Your task to perform on an android device: Open the calendar app, open the side menu, and click the "Day" option Image 0: 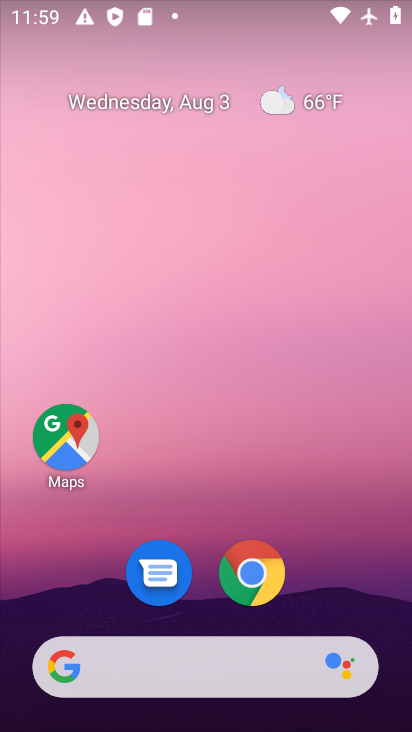
Step 0: drag from (332, 510) to (367, 48)
Your task to perform on an android device: Open the calendar app, open the side menu, and click the "Day" option Image 1: 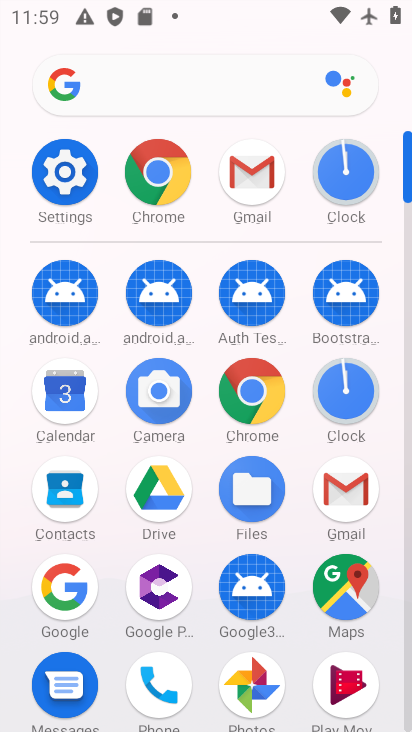
Step 1: click (78, 400)
Your task to perform on an android device: Open the calendar app, open the side menu, and click the "Day" option Image 2: 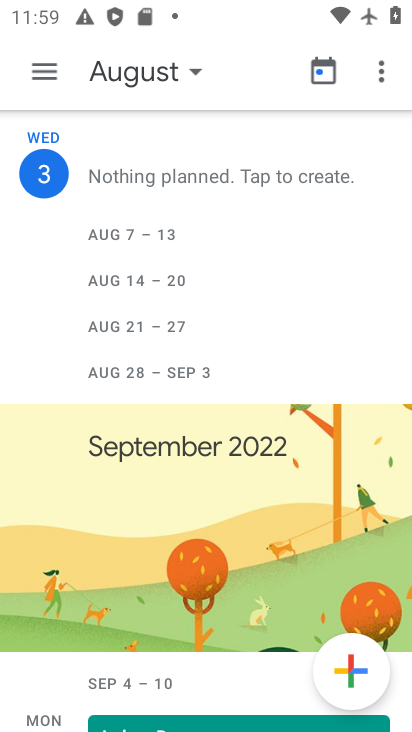
Step 2: click (35, 69)
Your task to perform on an android device: Open the calendar app, open the side menu, and click the "Day" option Image 3: 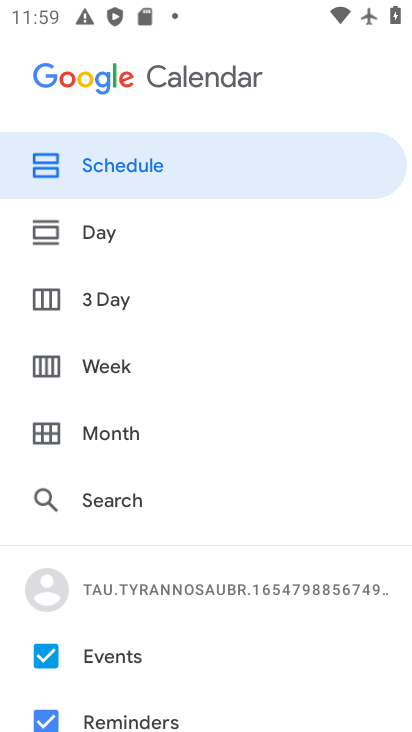
Step 3: click (122, 238)
Your task to perform on an android device: Open the calendar app, open the side menu, and click the "Day" option Image 4: 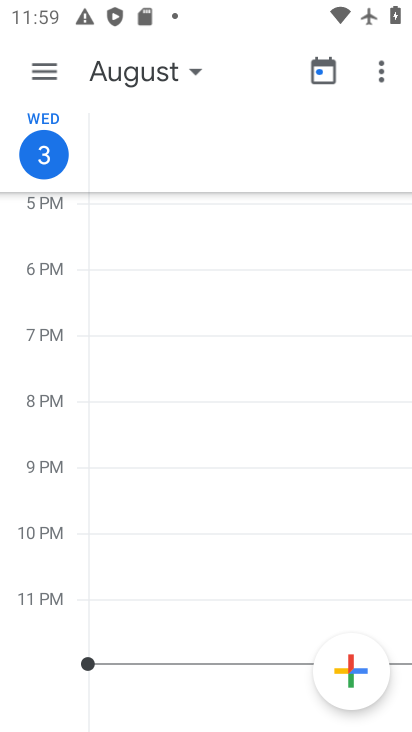
Step 4: task complete